Your task to perform on an android device: Do I have any events tomorrow? Image 0: 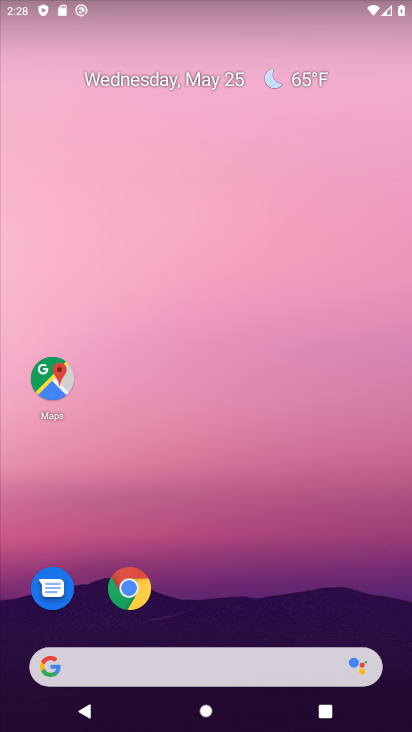
Step 0: drag from (218, 597) to (230, 197)
Your task to perform on an android device: Do I have any events tomorrow? Image 1: 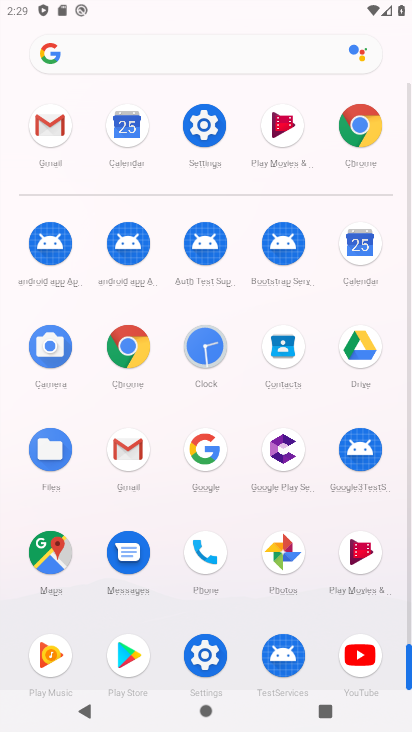
Step 1: click (360, 251)
Your task to perform on an android device: Do I have any events tomorrow? Image 2: 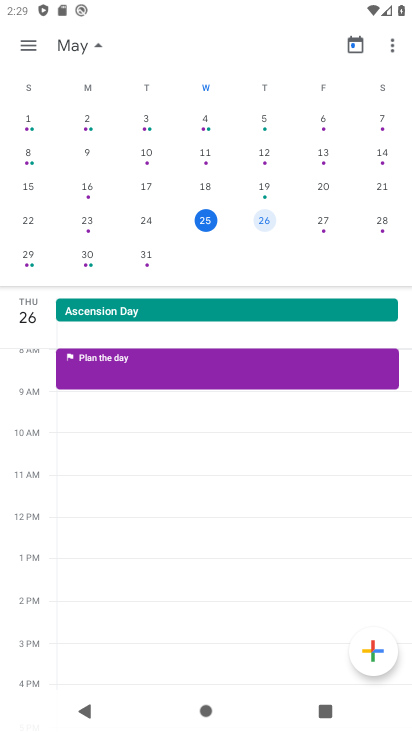
Step 2: click (271, 212)
Your task to perform on an android device: Do I have any events tomorrow? Image 3: 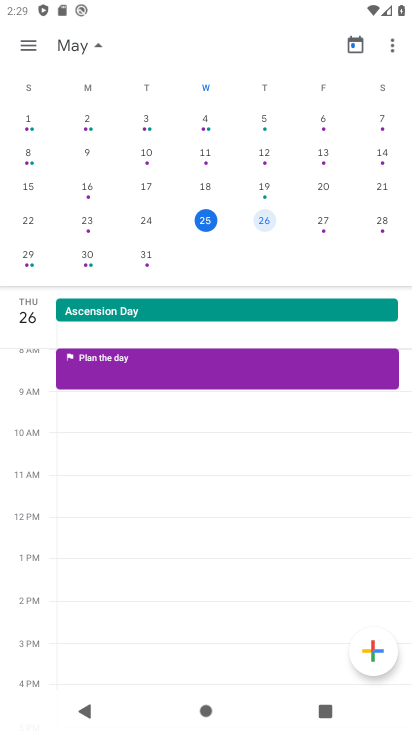
Step 3: task complete